Your task to perform on an android device: Open calendar and show me the second week of next month Image 0: 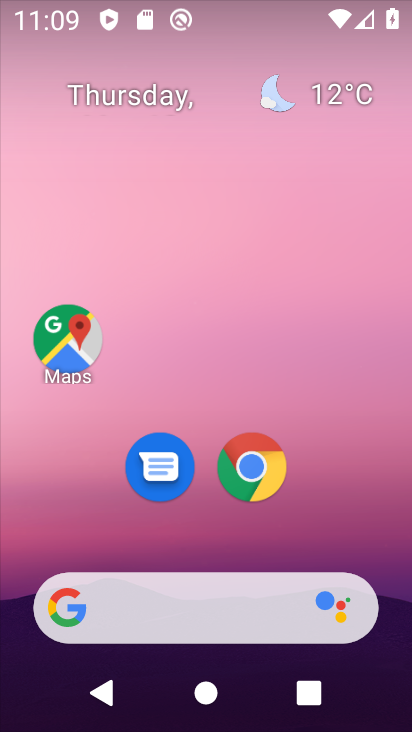
Step 0: drag from (370, 434) to (411, 69)
Your task to perform on an android device: Open calendar and show me the second week of next month Image 1: 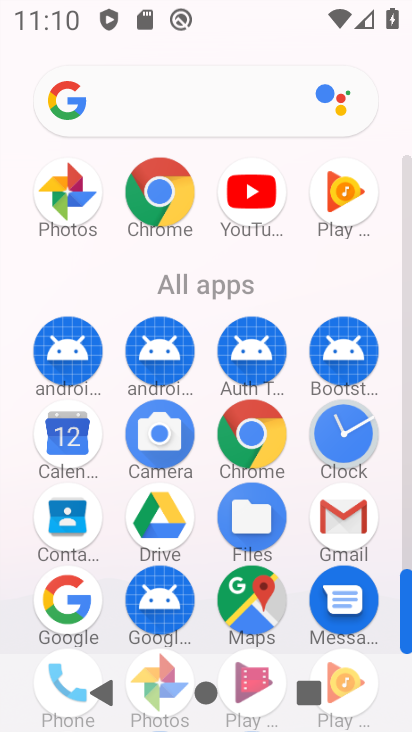
Step 1: click (57, 445)
Your task to perform on an android device: Open calendar and show me the second week of next month Image 2: 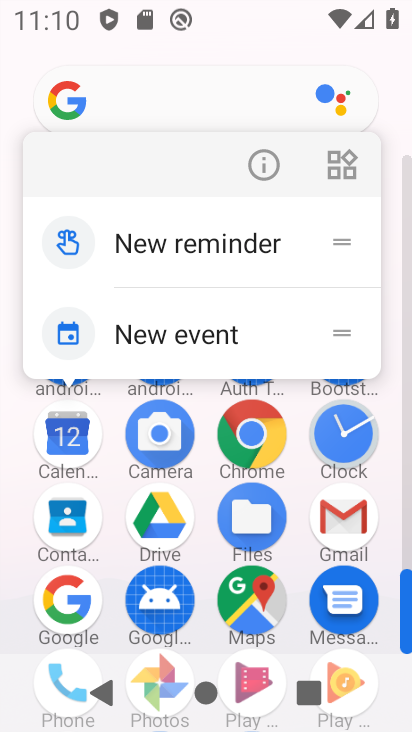
Step 2: click (57, 445)
Your task to perform on an android device: Open calendar and show me the second week of next month Image 3: 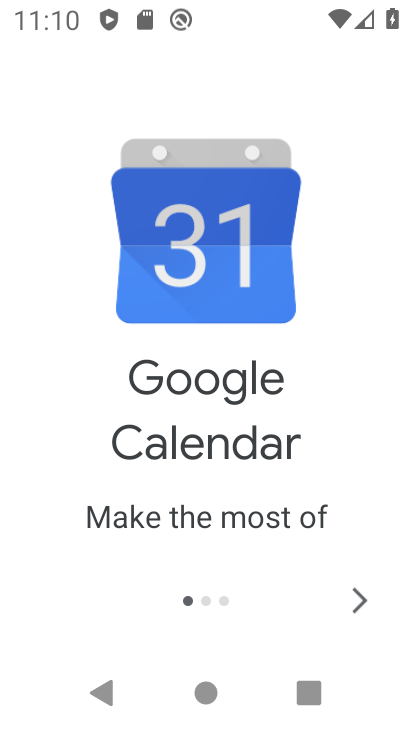
Step 3: click (353, 591)
Your task to perform on an android device: Open calendar and show me the second week of next month Image 4: 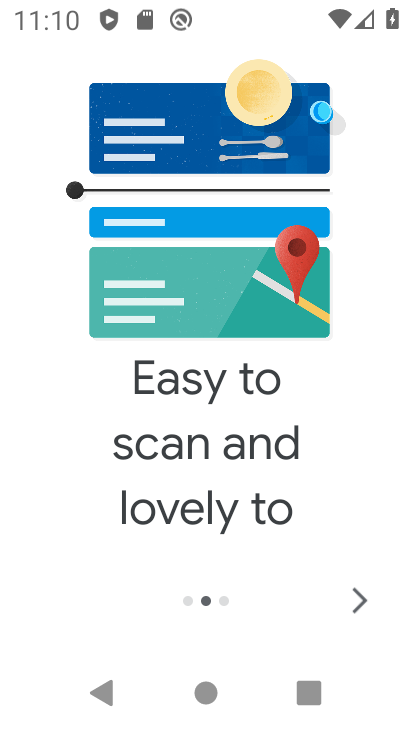
Step 4: click (353, 591)
Your task to perform on an android device: Open calendar and show me the second week of next month Image 5: 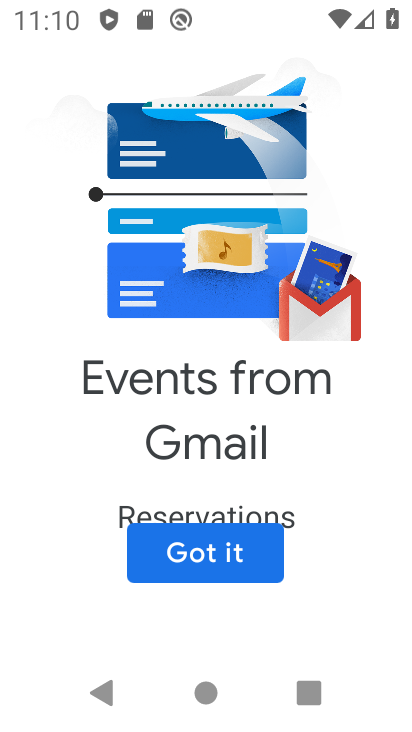
Step 5: click (239, 547)
Your task to perform on an android device: Open calendar and show me the second week of next month Image 6: 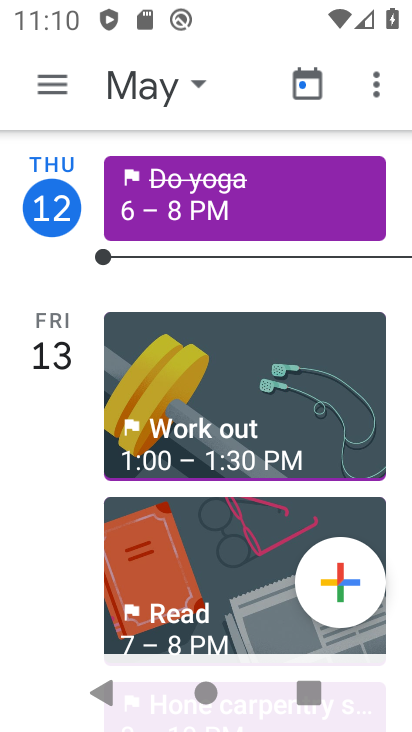
Step 6: click (163, 86)
Your task to perform on an android device: Open calendar and show me the second week of next month Image 7: 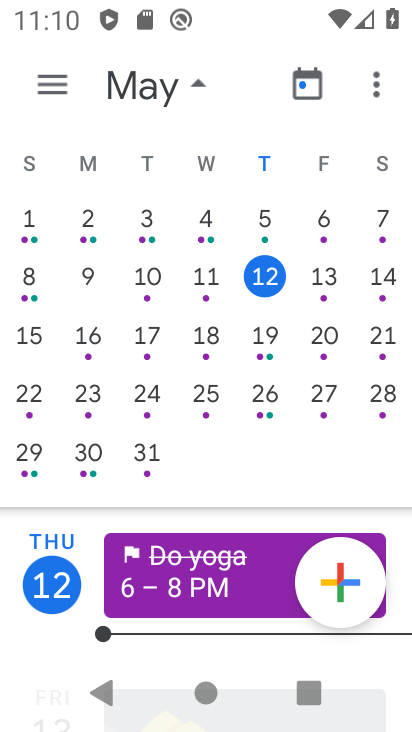
Step 7: drag from (349, 352) to (56, 550)
Your task to perform on an android device: Open calendar and show me the second week of next month Image 8: 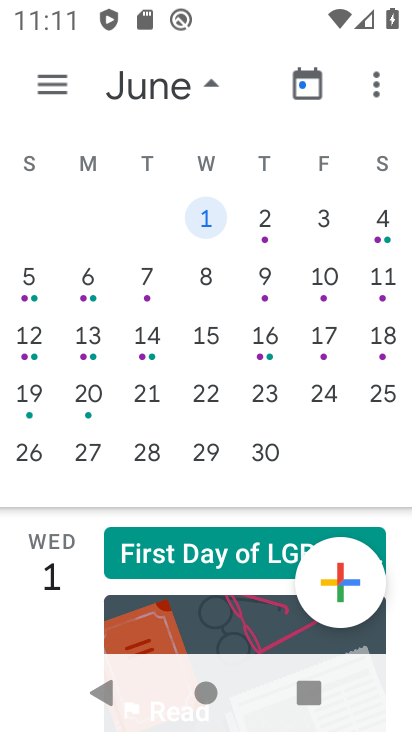
Step 8: click (137, 347)
Your task to perform on an android device: Open calendar and show me the second week of next month Image 9: 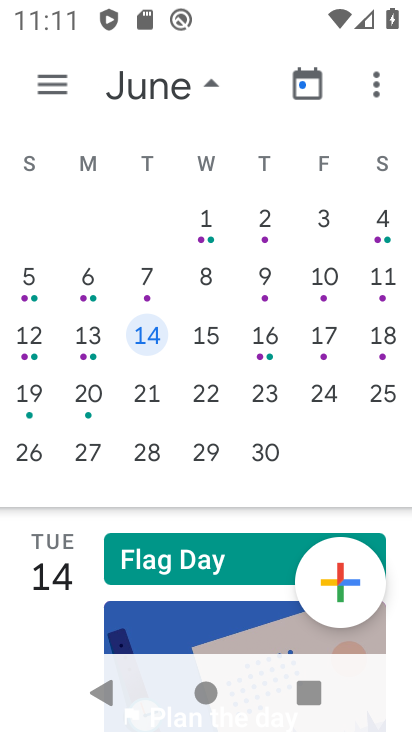
Step 9: task complete